Your task to perform on an android device: Go to Wikipedia Image 0: 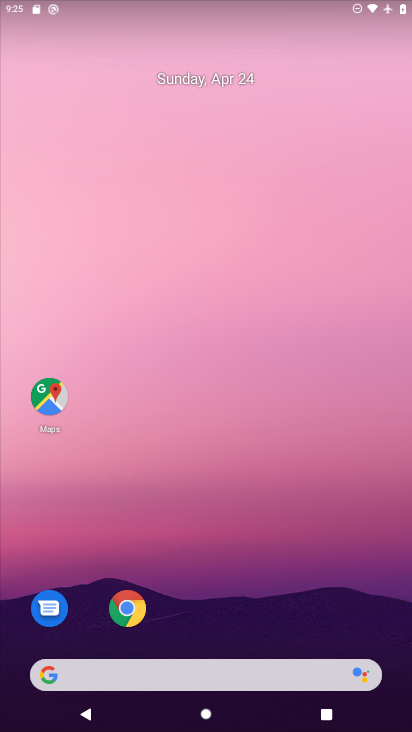
Step 0: click (152, 677)
Your task to perform on an android device: Go to Wikipedia Image 1: 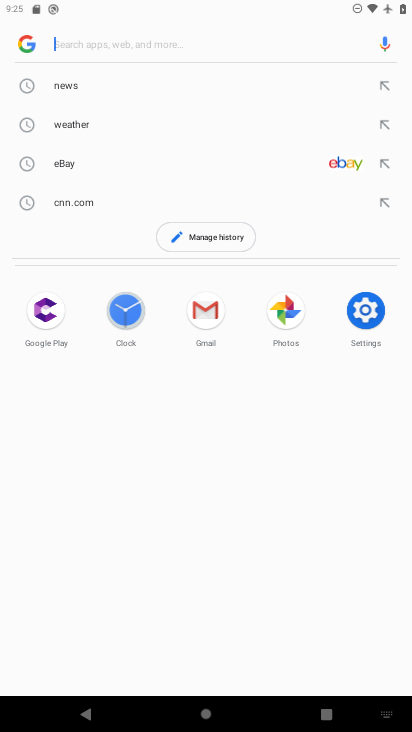
Step 1: type "Wikipedia"
Your task to perform on an android device: Go to Wikipedia Image 2: 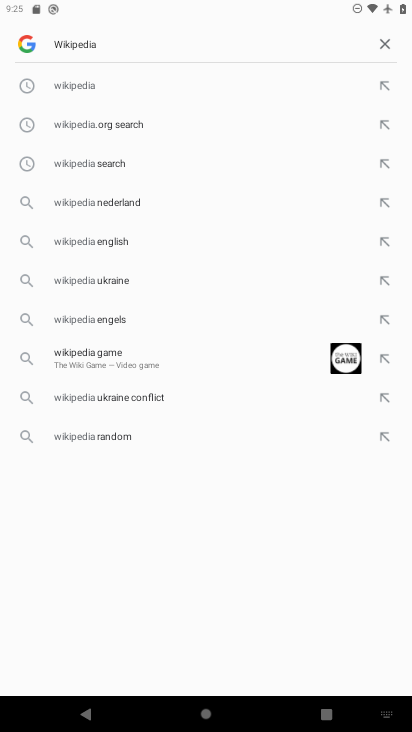
Step 2: click (120, 86)
Your task to perform on an android device: Go to Wikipedia Image 3: 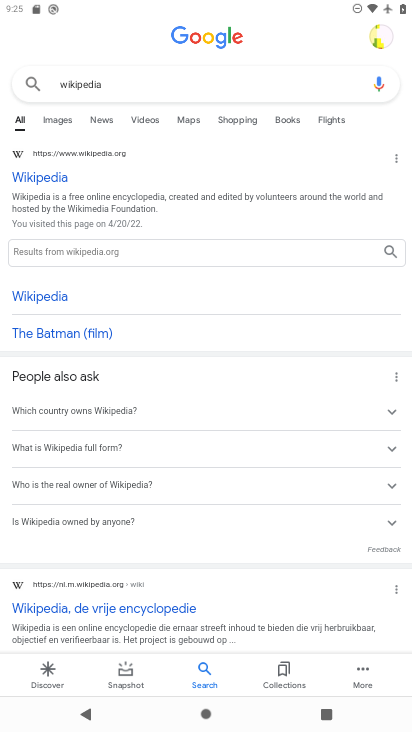
Step 3: click (59, 178)
Your task to perform on an android device: Go to Wikipedia Image 4: 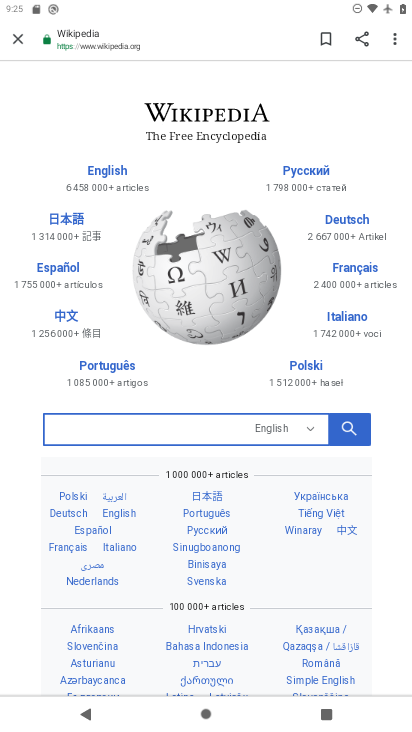
Step 4: task complete